Your task to perform on an android device: Search for macbook air on costco.com, select the first entry, and add it to the cart. Image 0: 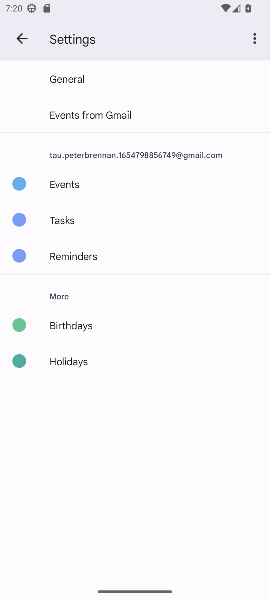
Step 0: press home button
Your task to perform on an android device: Search for macbook air on costco.com, select the first entry, and add it to the cart. Image 1: 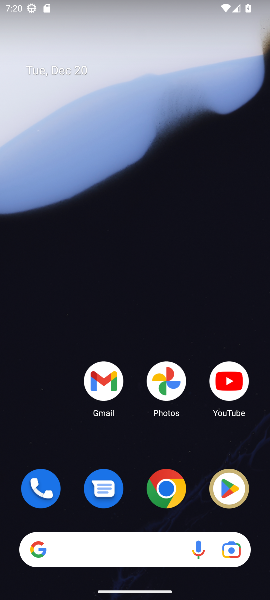
Step 1: drag from (56, 432) to (54, 58)
Your task to perform on an android device: Search for macbook air on costco.com, select the first entry, and add it to the cart. Image 2: 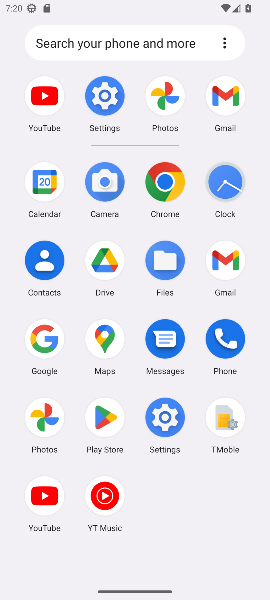
Step 2: click (40, 335)
Your task to perform on an android device: Search for macbook air on costco.com, select the first entry, and add it to the cart. Image 3: 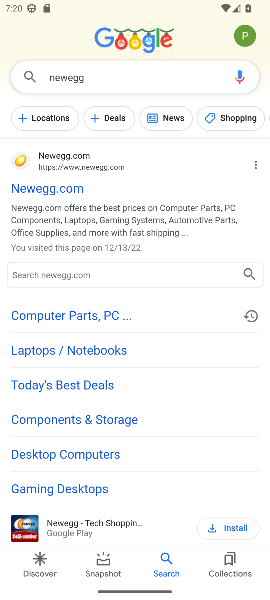
Step 3: click (125, 76)
Your task to perform on an android device: Search for macbook air on costco.com, select the first entry, and add it to the cart. Image 4: 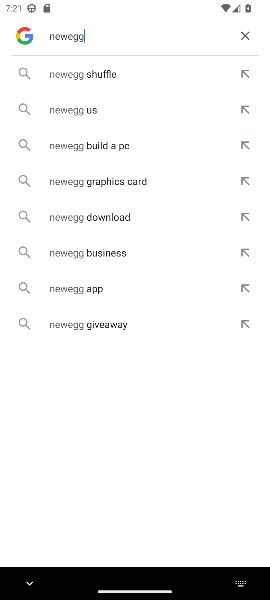
Step 4: click (243, 33)
Your task to perform on an android device: Search for macbook air on costco.com, select the first entry, and add it to the cart. Image 5: 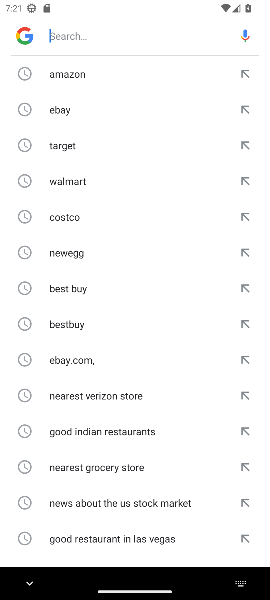
Step 5: type "costco.com"
Your task to perform on an android device: Search for macbook air on costco.com, select the first entry, and add it to the cart. Image 6: 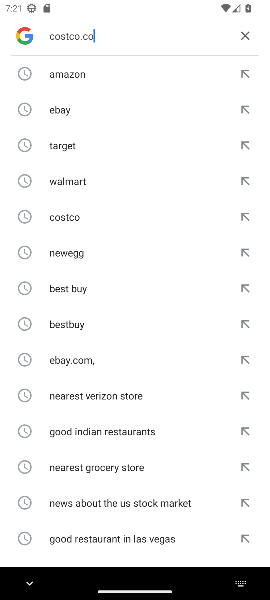
Step 6: press enter
Your task to perform on an android device: Search for macbook air on costco.com, select the first entry, and add it to the cart. Image 7: 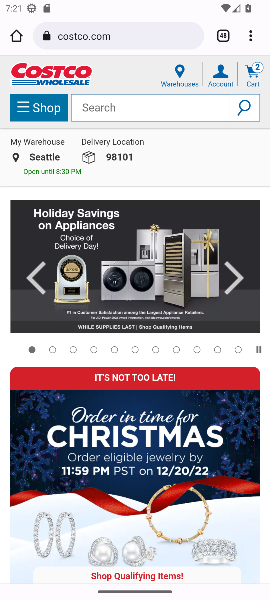
Step 7: click (101, 107)
Your task to perform on an android device: Search for macbook air on costco.com, select the first entry, and add it to the cart. Image 8: 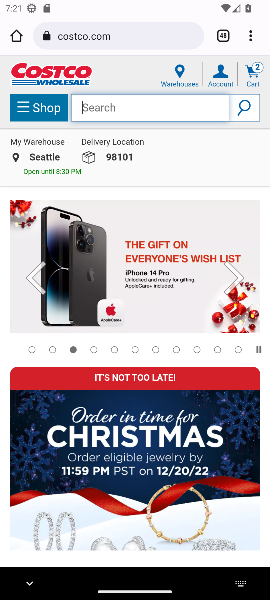
Step 8: type "macbook air"
Your task to perform on an android device: Search for macbook air on costco.com, select the first entry, and add it to the cart. Image 9: 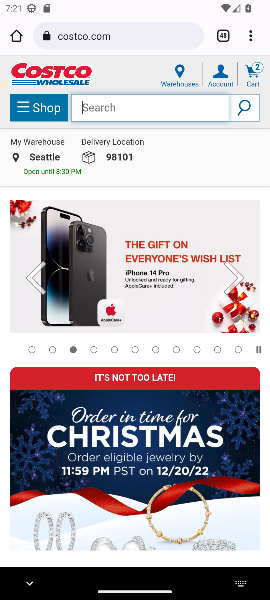
Step 9: press enter
Your task to perform on an android device: Search for macbook air on costco.com, select the first entry, and add it to the cart. Image 10: 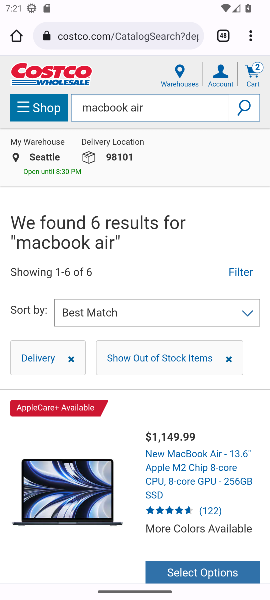
Step 10: drag from (165, 503) to (160, 278)
Your task to perform on an android device: Search for macbook air on costco.com, select the first entry, and add it to the cart. Image 11: 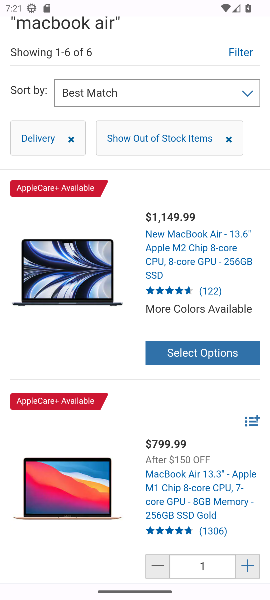
Step 11: click (185, 251)
Your task to perform on an android device: Search for macbook air on costco.com, select the first entry, and add it to the cart. Image 12: 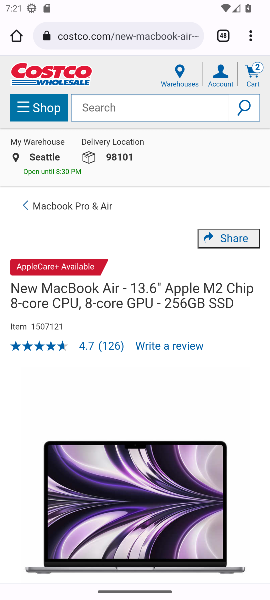
Step 12: drag from (138, 513) to (137, 193)
Your task to perform on an android device: Search for macbook air on costco.com, select the first entry, and add it to the cart. Image 13: 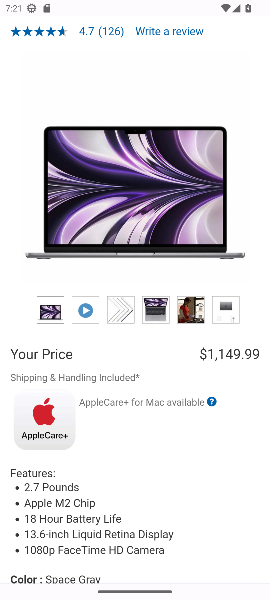
Step 13: drag from (129, 517) to (129, 157)
Your task to perform on an android device: Search for macbook air on costco.com, select the first entry, and add it to the cart. Image 14: 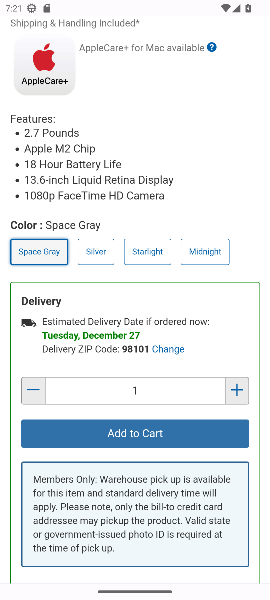
Step 14: drag from (134, 495) to (156, 216)
Your task to perform on an android device: Search for macbook air on costco.com, select the first entry, and add it to the cart. Image 15: 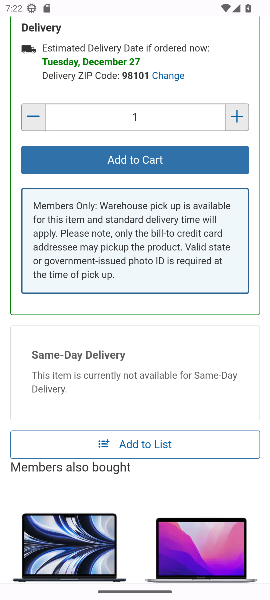
Step 15: click (107, 154)
Your task to perform on an android device: Search for macbook air on costco.com, select the first entry, and add it to the cart. Image 16: 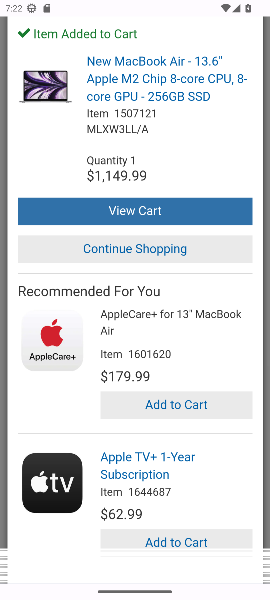
Step 16: task complete